Your task to perform on an android device: toggle notification dots Image 0: 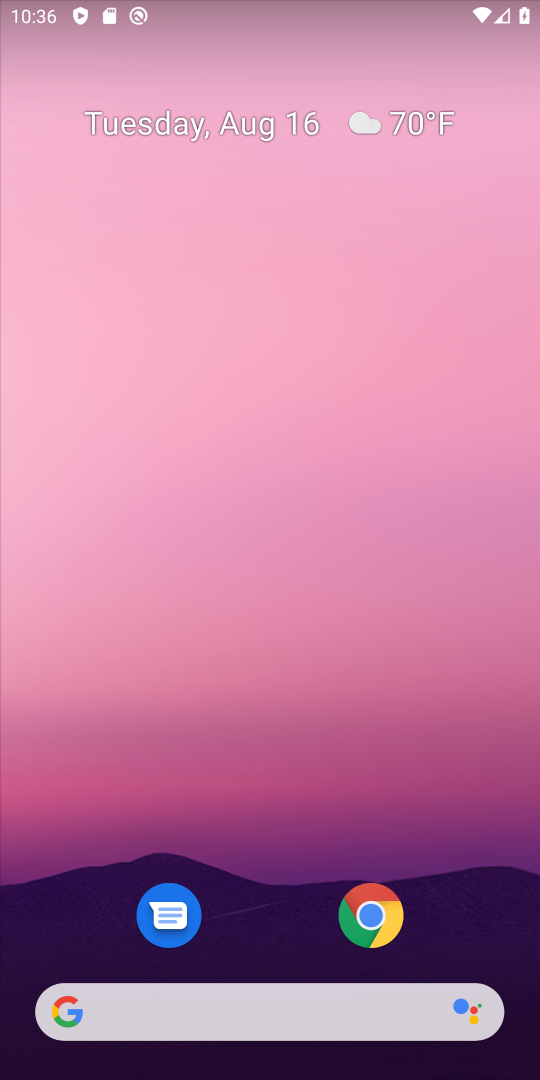
Step 0: drag from (251, 987) to (499, 738)
Your task to perform on an android device: toggle notification dots Image 1: 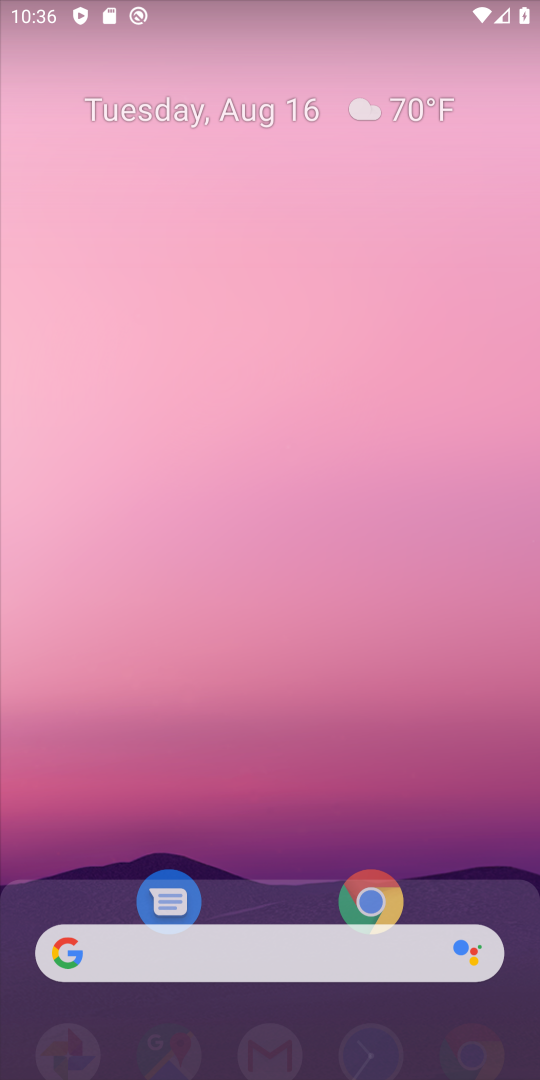
Step 1: click (184, 988)
Your task to perform on an android device: toggle notification dots Image 2: 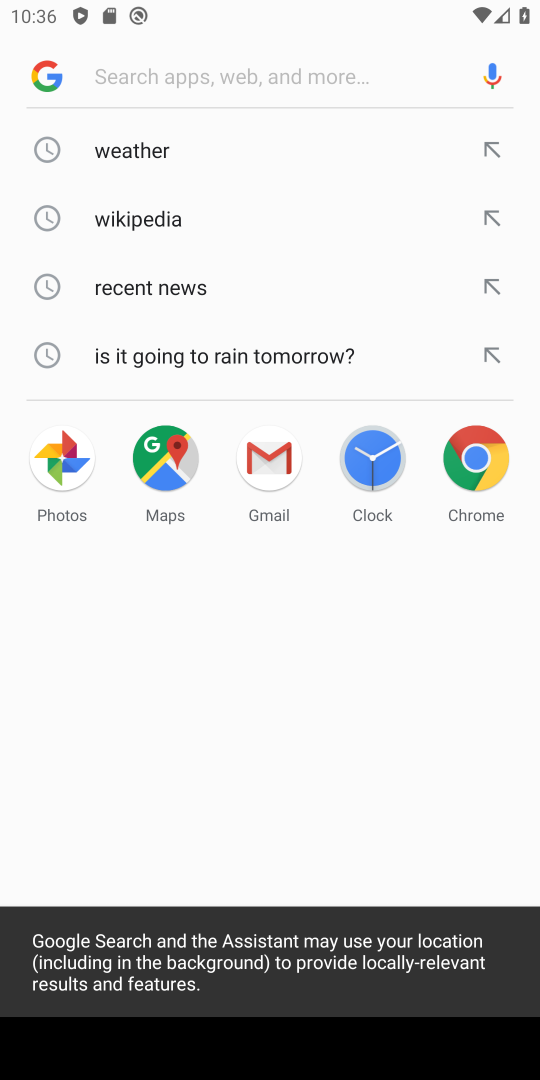
Step 2: press back button
Your task to perform on an android device: toggle notification dots Image 3: 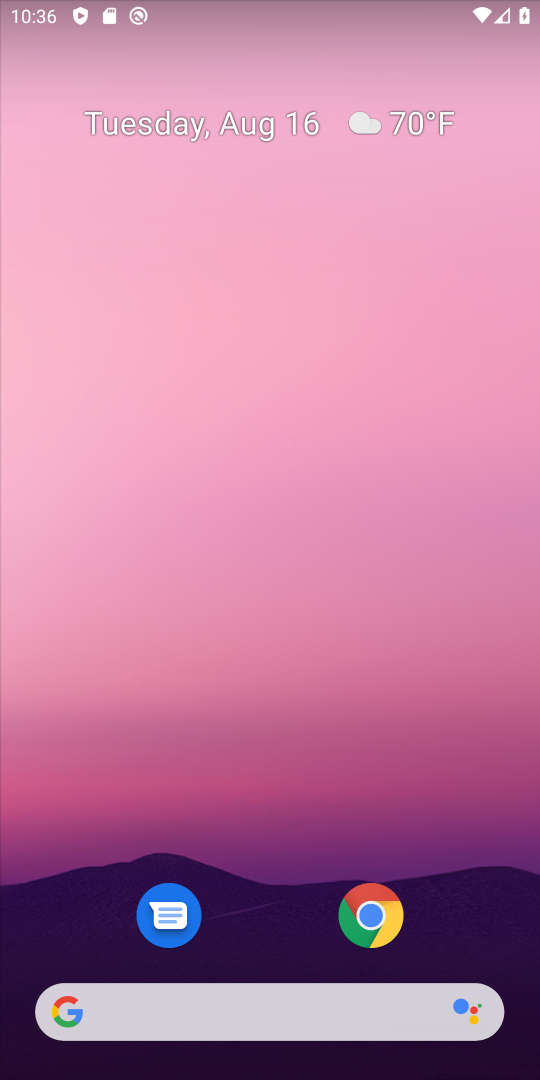
Step 3: drag from (275, 973) to (139, 13)
Your task to perform on an android device: toggle notification dots Image 4: 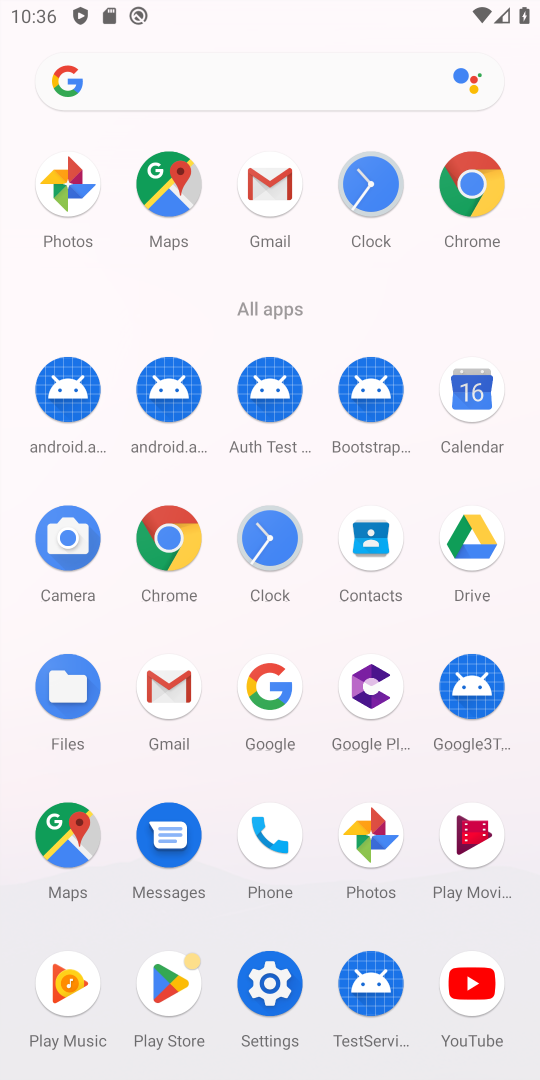
Step 4: click (287, 984)
Your task to perform on an android device: toggle notification dots Image 5: 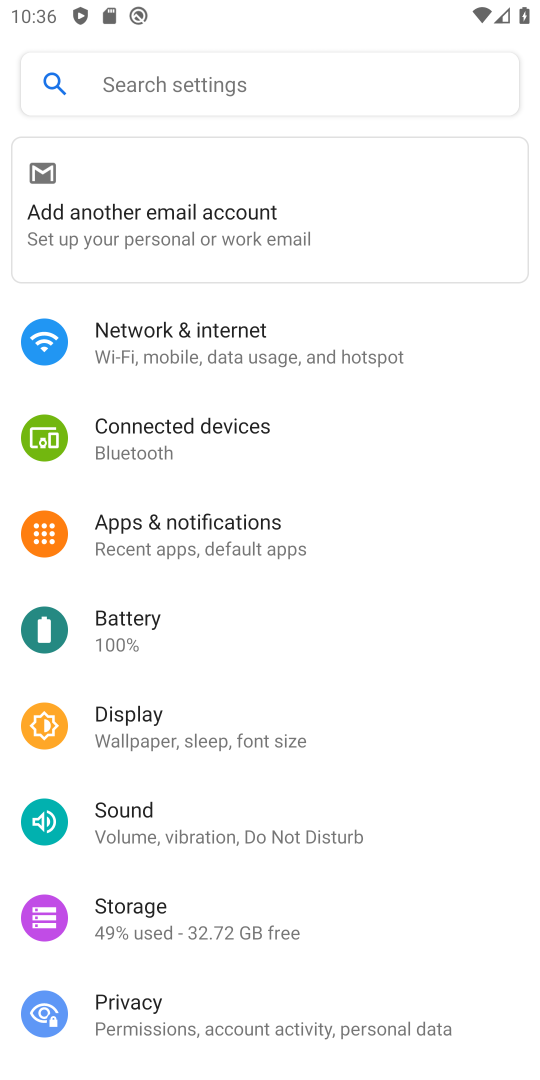
Step 5: click (181, 539)
Your task to perform on an android device: toggle notification dots Image 6: 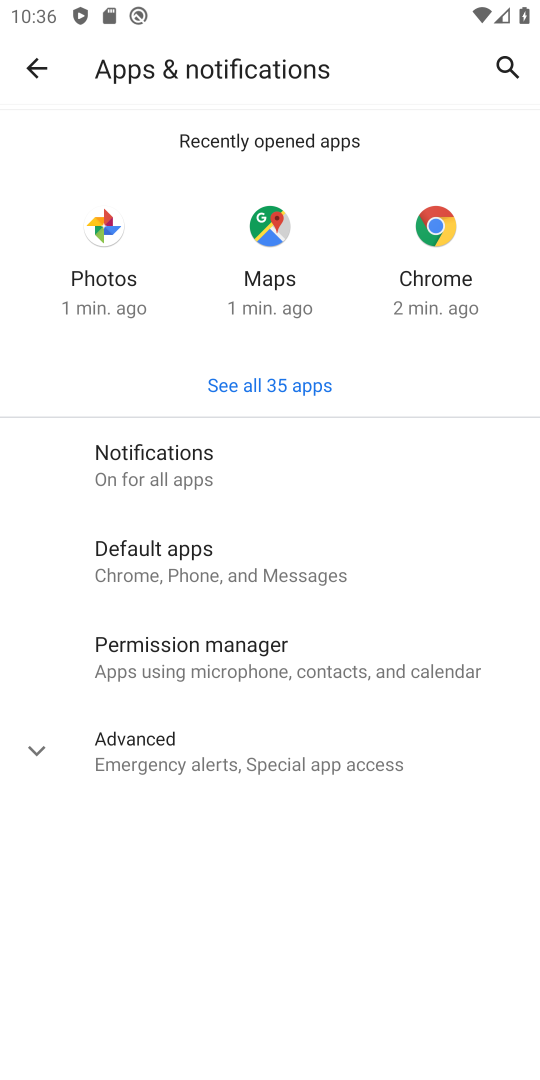
Step 6: click (119, 469)
Your task to perform on an android device: toggle notification dots Image 7: 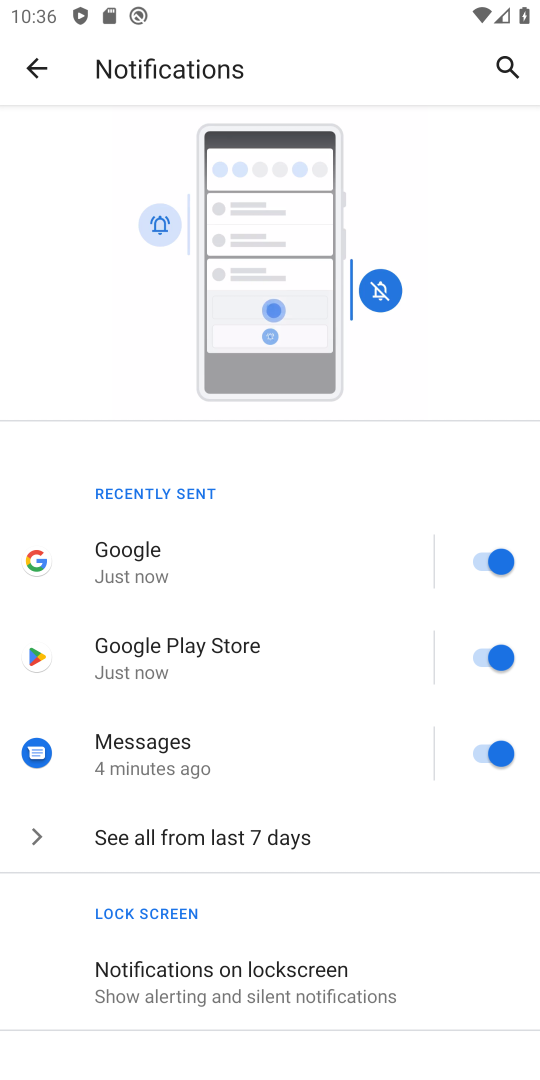
Step 7: drag from (130, 887) to (78, 0)
Your task to perform on an android device: toggle notification dots Image 8: 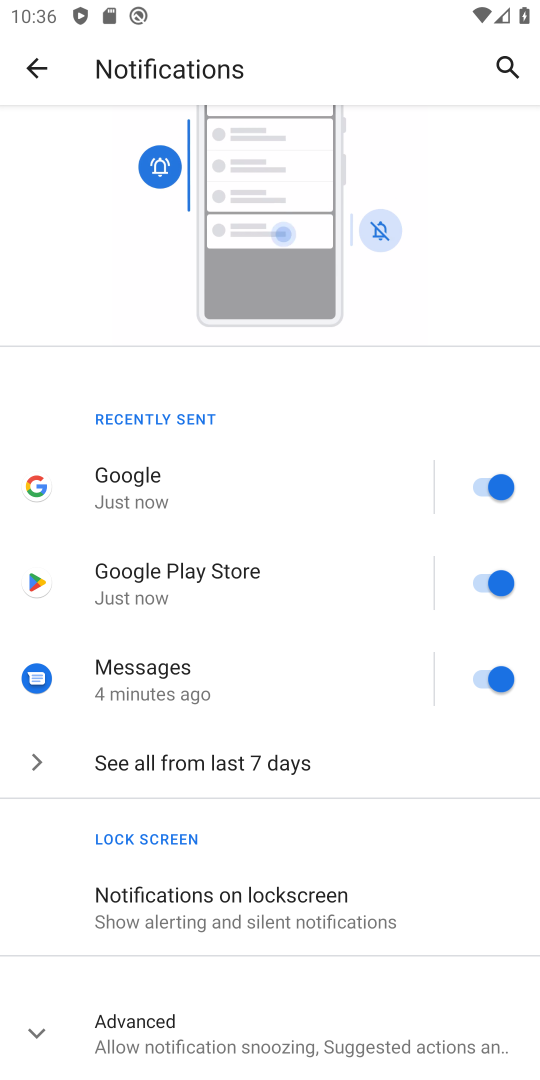
Step 8: click (85, 976)
Your task to perform on an android device: toggle notification dots Image 9: 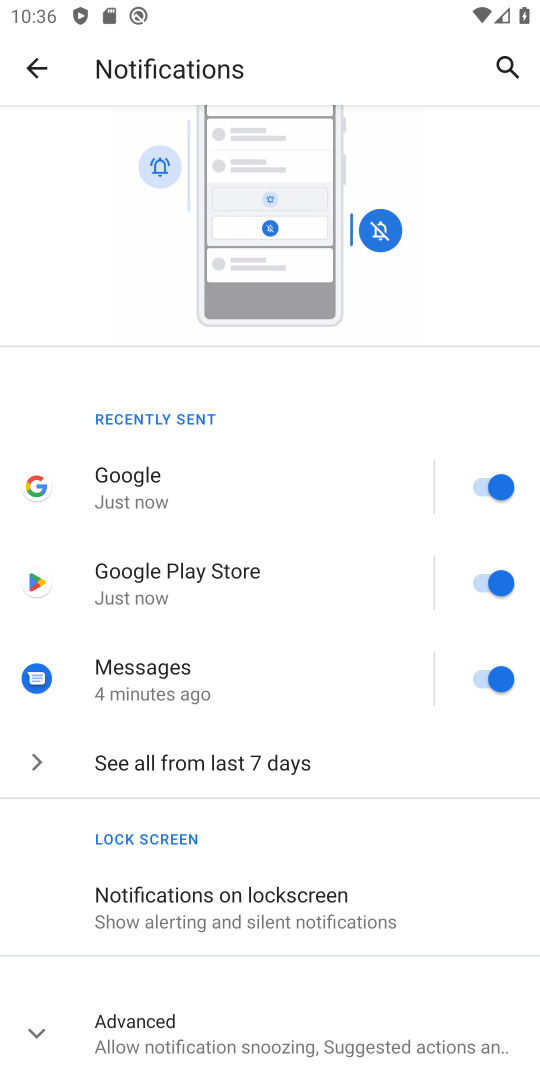
Step 9: click (99, 1020)
Your task to perform on an android device: toggle notification dots Image 10: 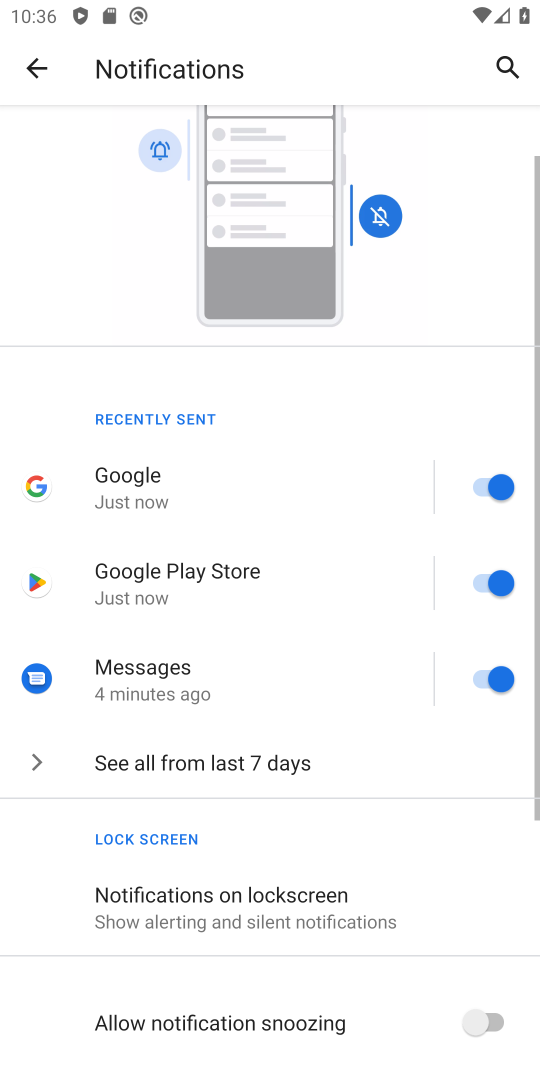
Step 10: drag from (99, 1020) to (96, 394)
Your task to perform on an android device: toggle notification dots Image 11: 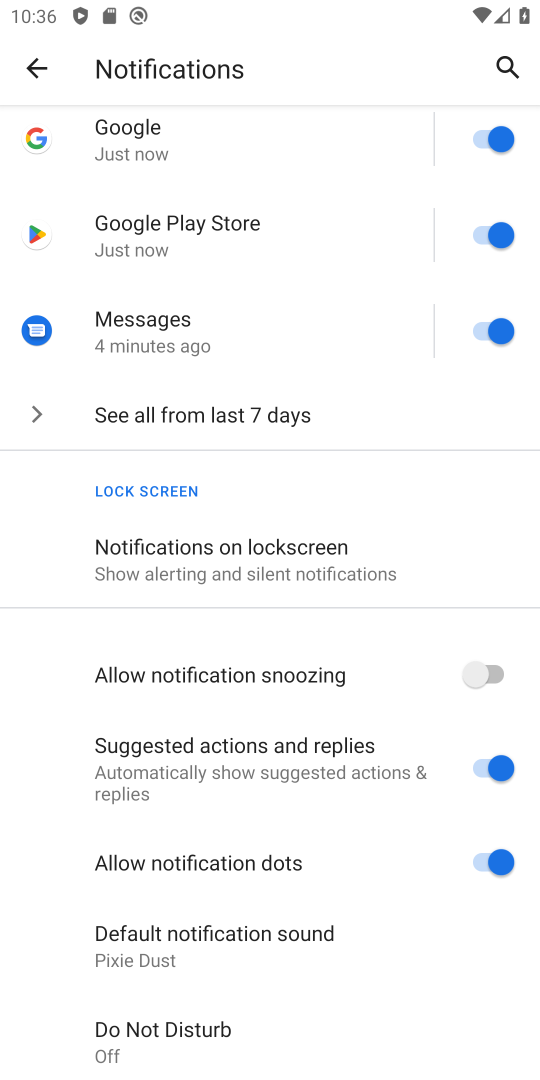
Step 11: click (479, 872)
Your task to perform on an android device: toggle notification dots Image 12: 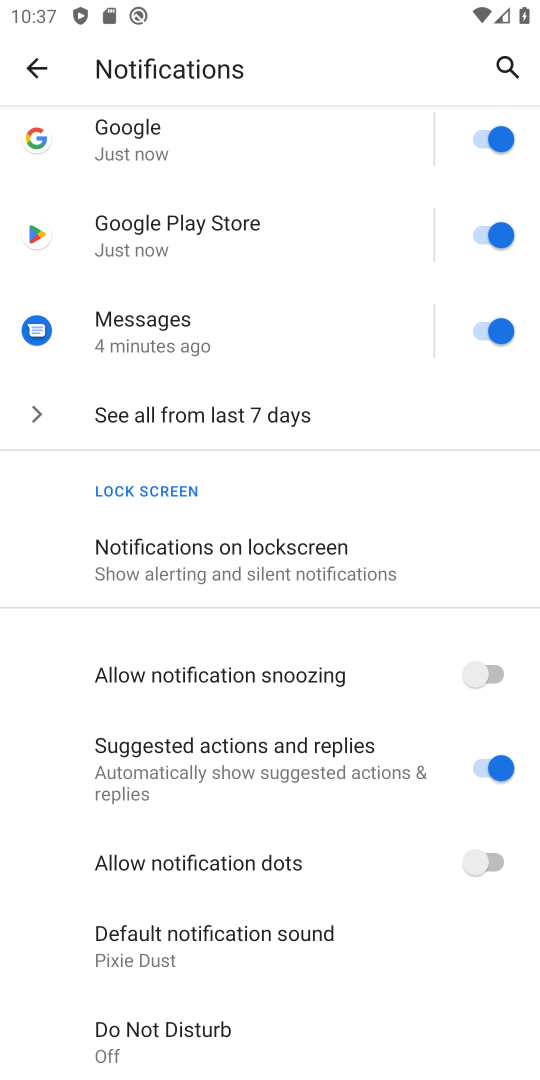
Step 12: task complete